Your task to perform on an android device: turn pop-ups off in chrome Image 0: 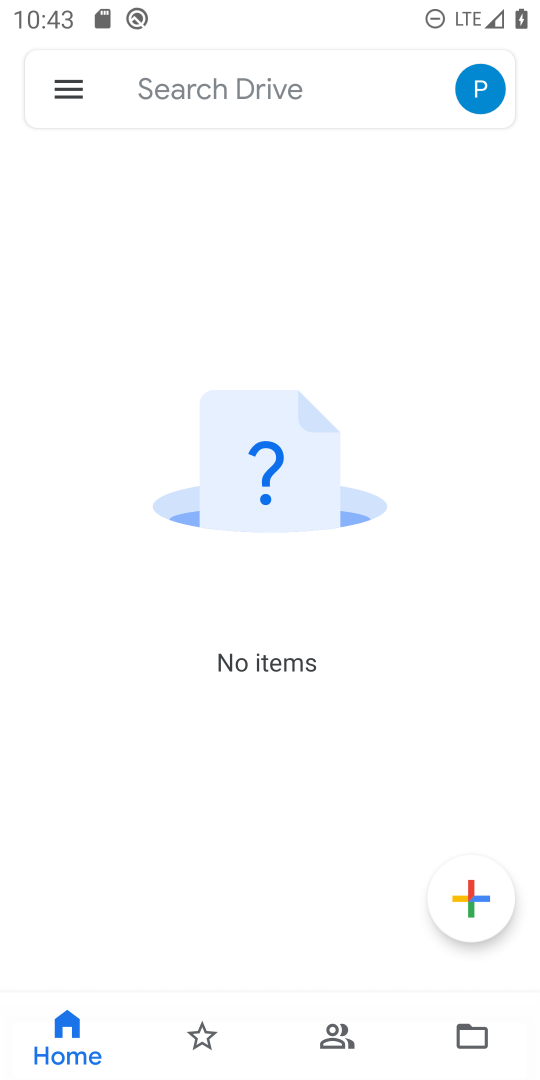
Step 0: press home button
Your task to perform on an android device: turn pop-ups off in chrome Image 1: 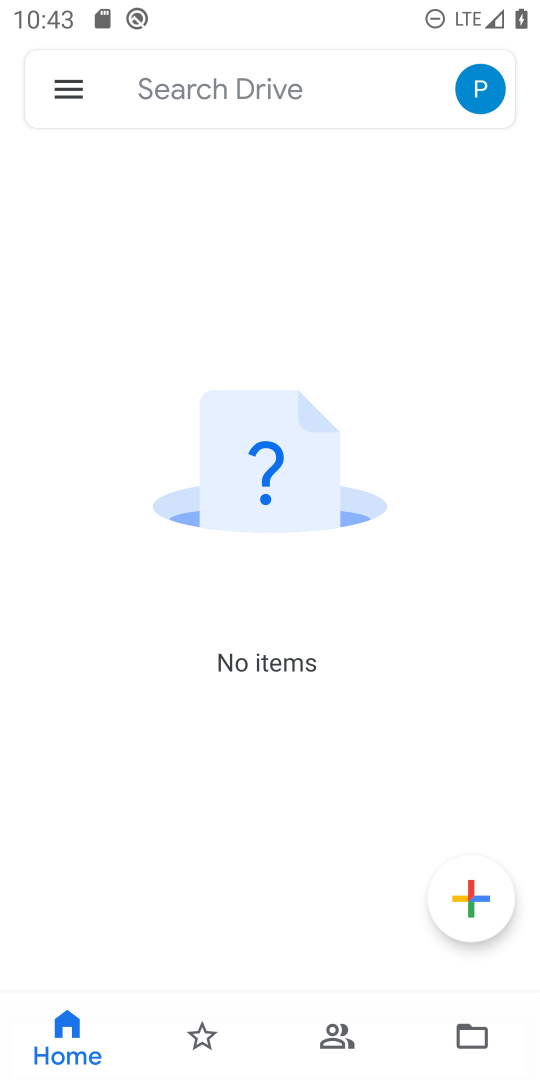
Step 1: press home button
Your task to perform on an android device: turn pop-ups off in chrome Image 2: 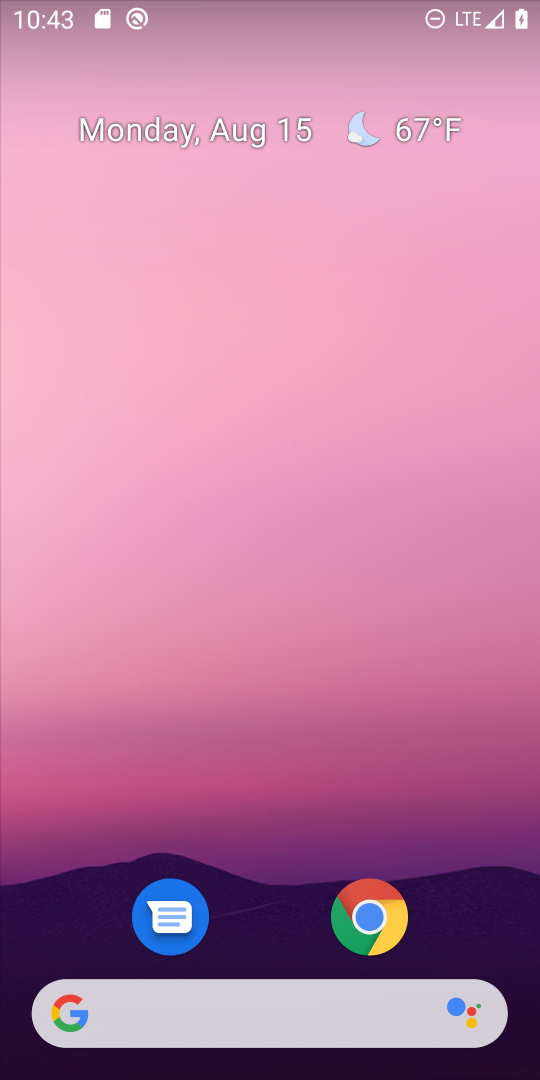
Step 2: click (368, 909)
Your task to perform on an android device: turn pop-ups off in chrome Image 3: 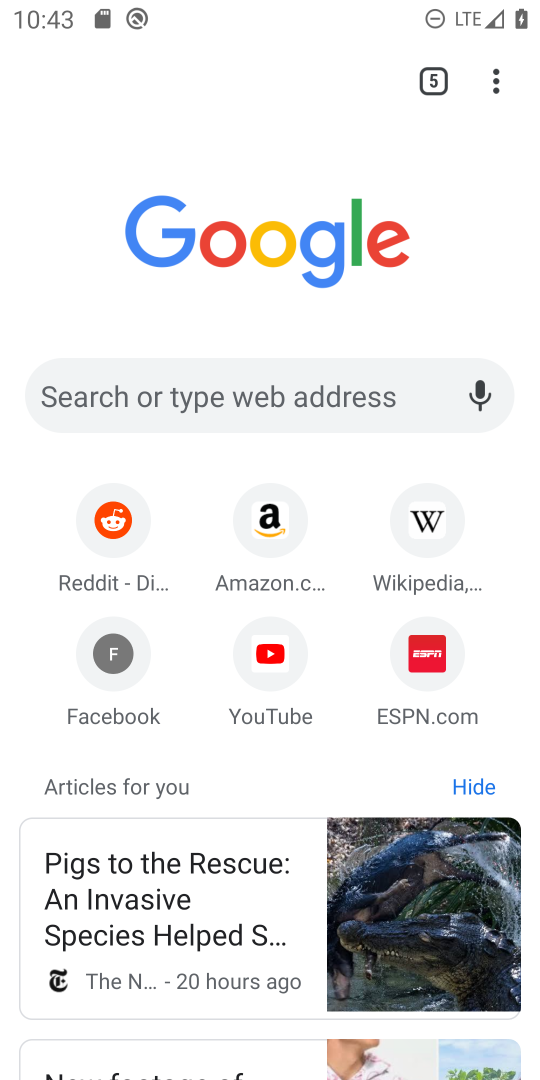
Step 3: click (498, 85)
Your task to perform on an android device: turn pop-ups off in chrome Image 4: 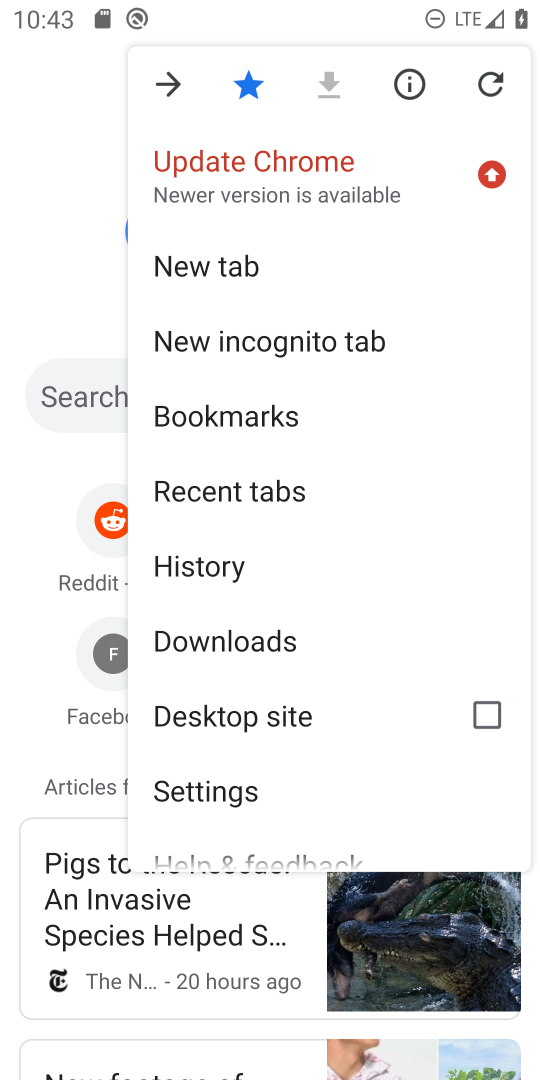
Step 4: click (250, 785)
Your task to perform on an android device: turn pop-ups off in chrome Image 5: 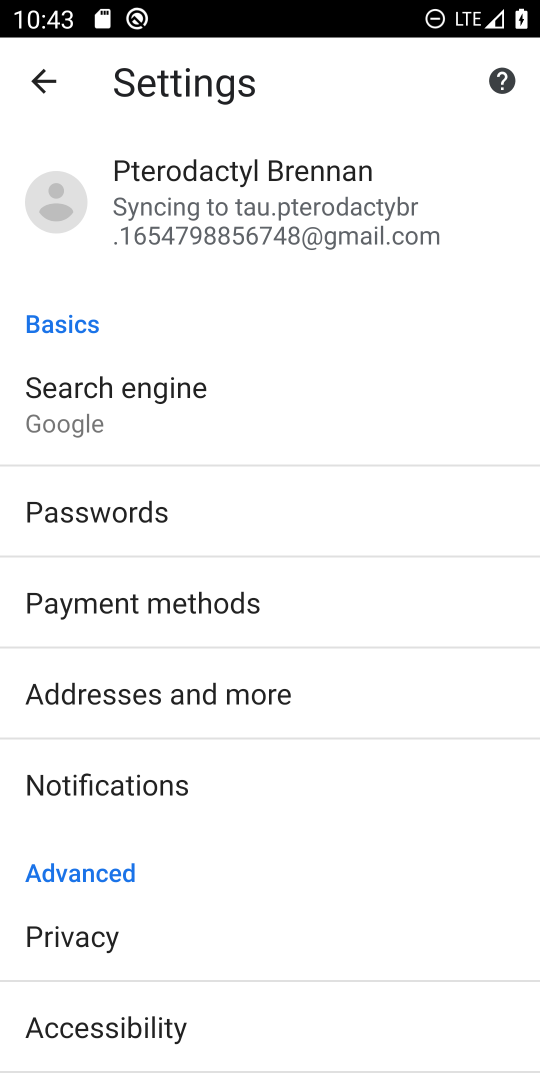
Step 5: drag from (231, 834) to (386, 311)
Your task to perform on an android device: turn pop-ups off in chrome Image 6: 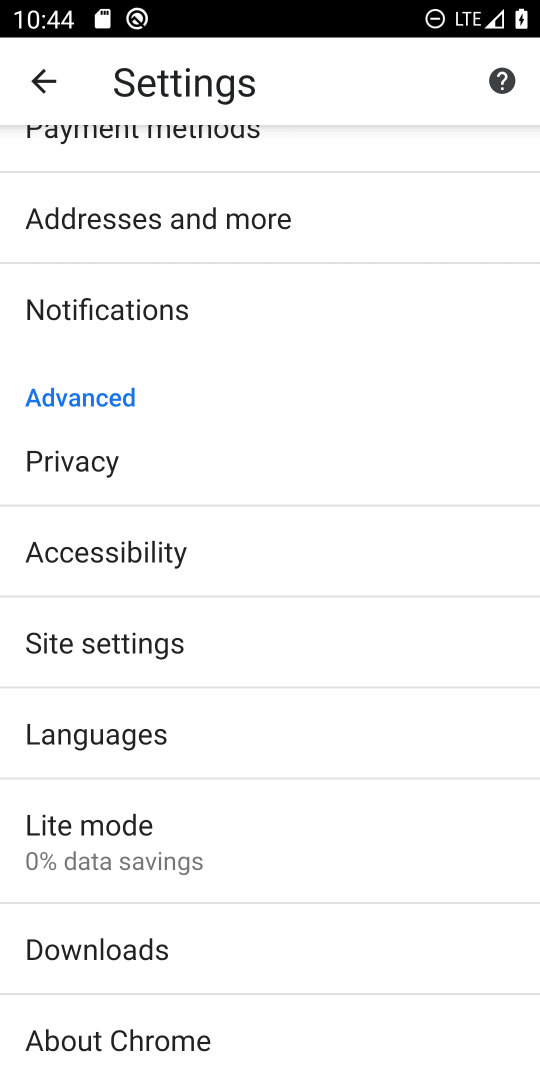
Step 6: click (277, 658)
Your task to perform on an android device: turn pop-ups off in chrome Image 7: 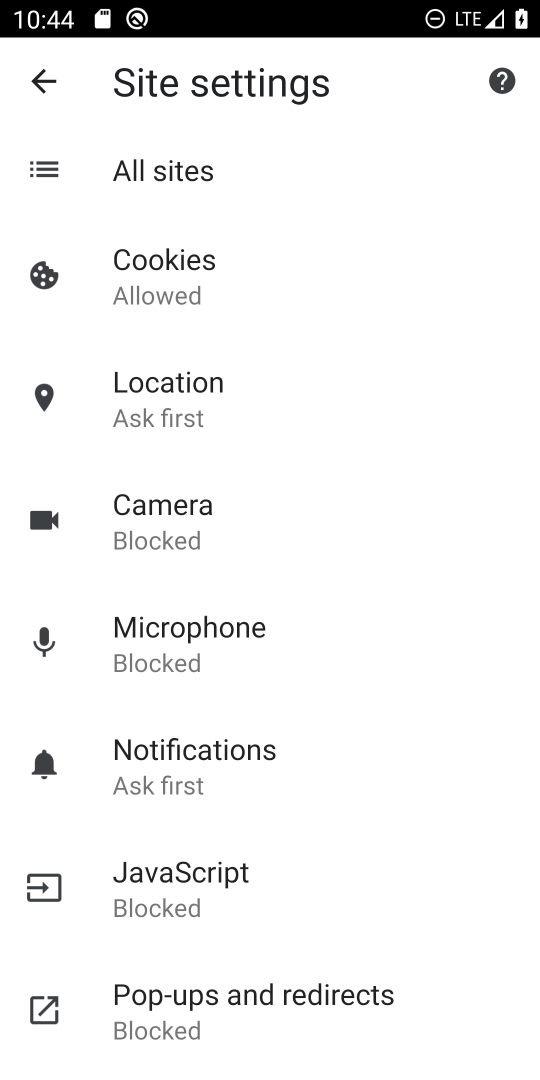
Step 7: click (249, 1001)
Your task to perform on an android device: turn pop-ups off in chrome Image 8: 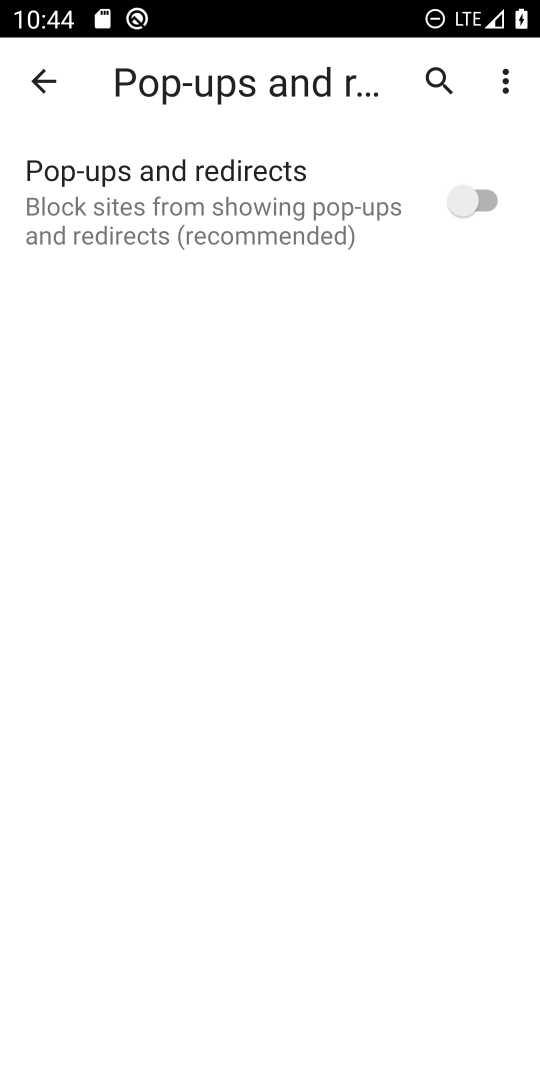
Step 8: task complete